Your task to perform on an android device: Search for sushi restaurants on Maps Image 0: 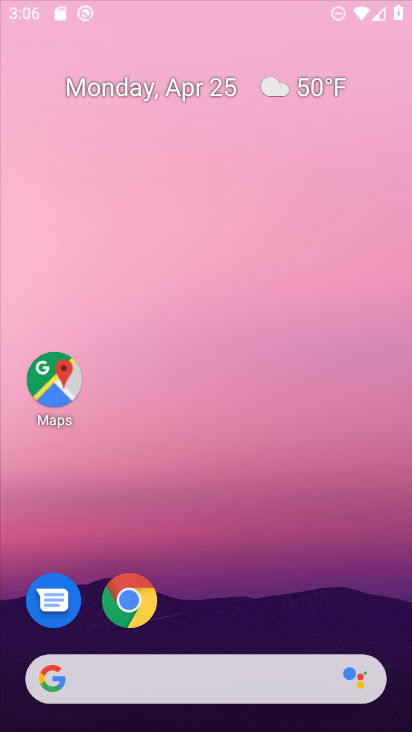
Step 0: click (191, 678)
Your task to perform on an android device: Search for sushi restaurants on Maps Image 1: 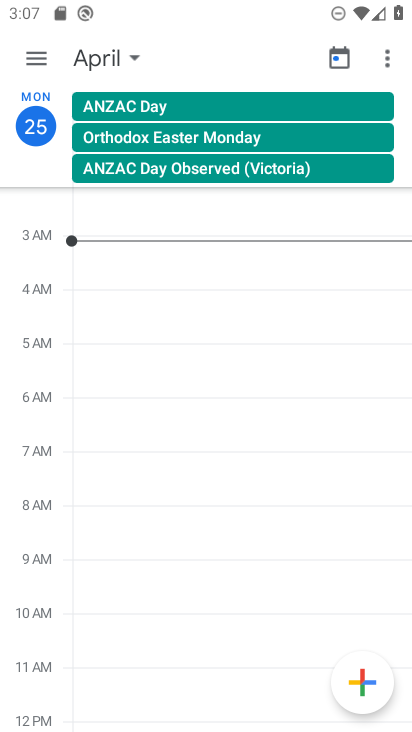
Step 1: press home button
Your task to perform on an android device: Search for sushi restaurants on Maps Image 2: 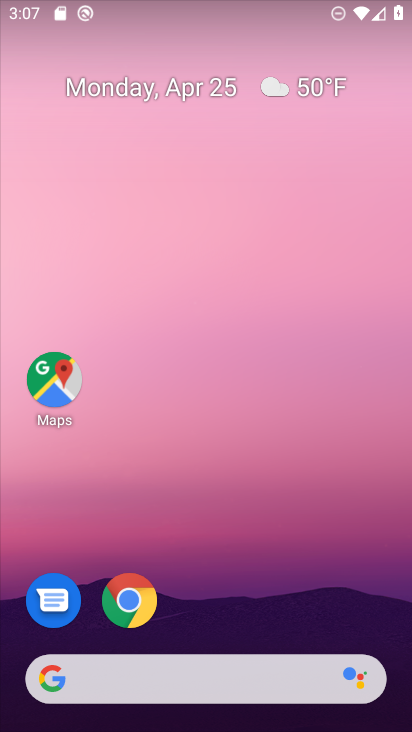
Step 2: drag from (219, 647) to (195, 101)
Your task to perform on an android device: Search for sushi restaurants on Maps Image 3: 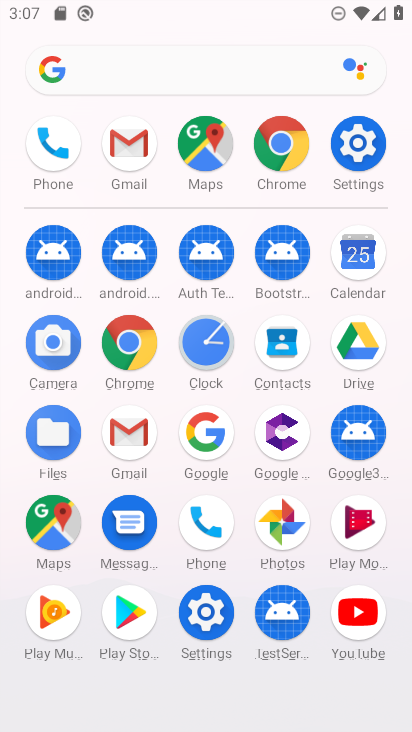
Step 3: click (51, 531)
Your task to perform on an android device: Search for sushi restaurants on Maps Image 4: 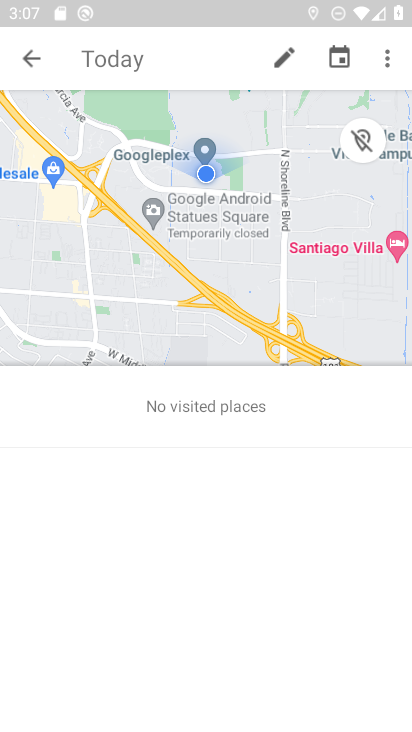
Step 4: click (27, 58)
Your task to perform on an android device: Search for sushi restaurants on Maps Image 5: 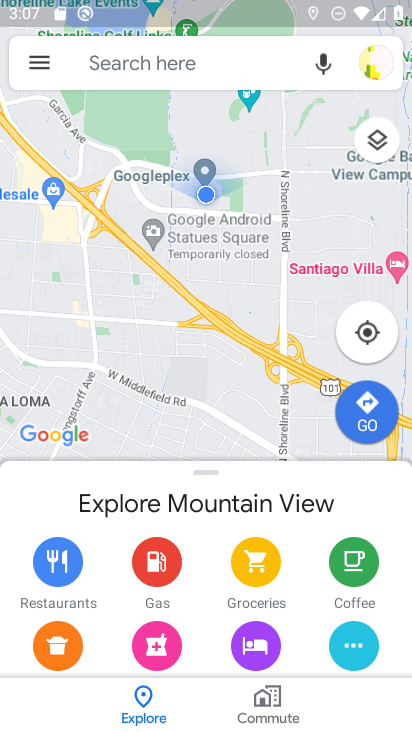
Step 5: click (188, 58)
Your task to perform on an android device: Search for sushi restaurants on Maps Image 6: 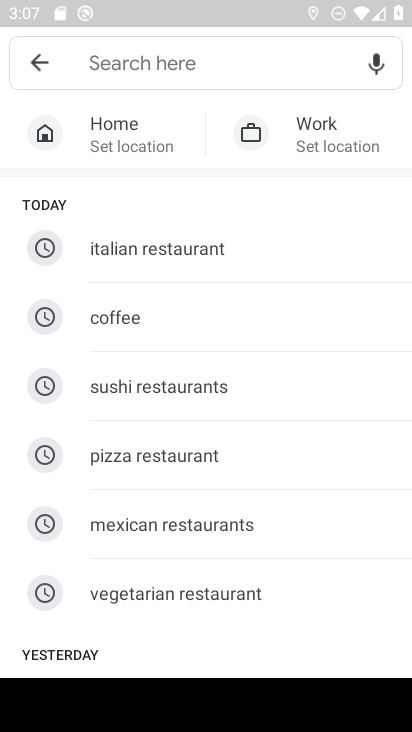
Step 6: click (128, 397)
Your task to perform on an android device: Search for sushi restaurants on Maps Image 7: 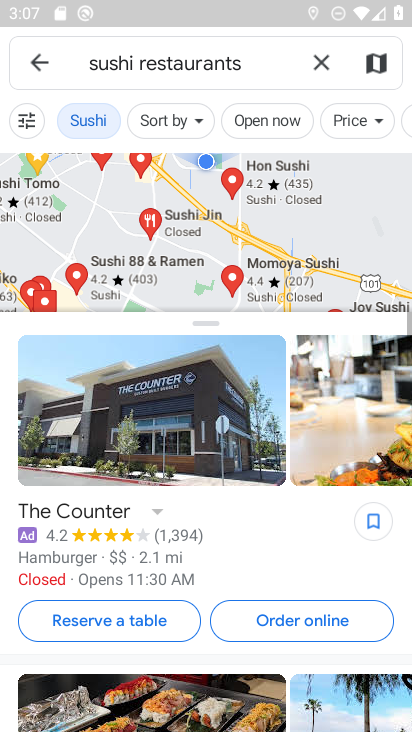
Step 7: task complete